Your task to perform on an android device: visit the assistant section in the google photos Image 0: 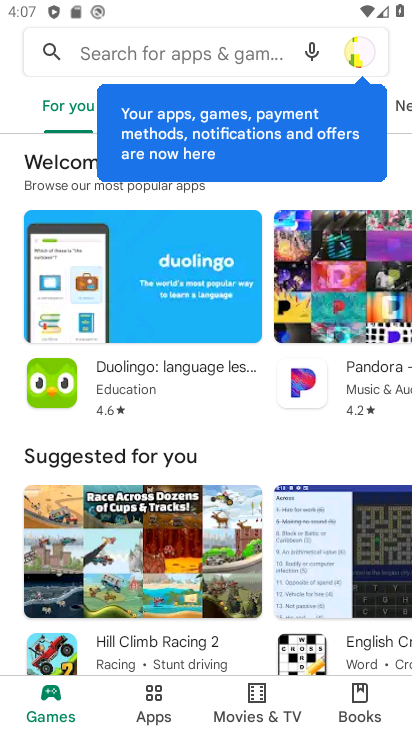
Step 0: press home button
Your task to perform on an android device: visit the assistant section in the google photos Image 1: 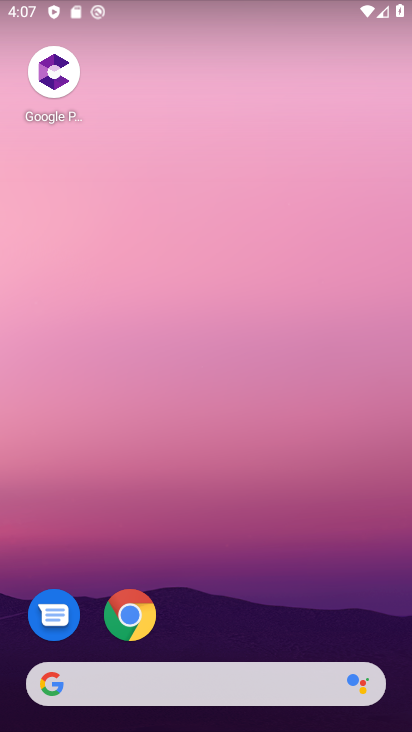
Step 1: drag from (229, 663) to (223, 277)
Your task to perform on an android device: visit the assistant section in the google photos Image 2: 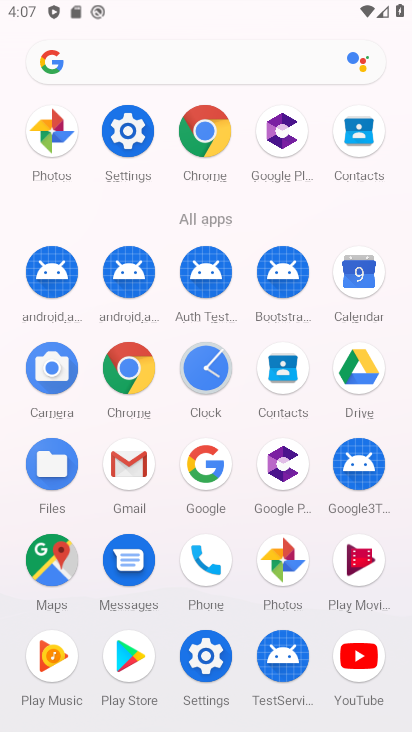
Step 2: drag from (231, 714) to (231, 380)
Your task to perform on an android device: visit the assistant section in the google photos Image 3: 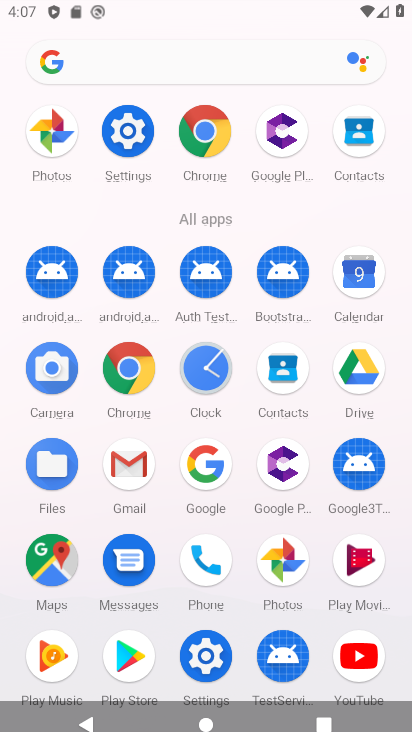
Step 3: click (280, 561)
Your task to perform on an android device: visit the assistant section in the google photos Image 4: 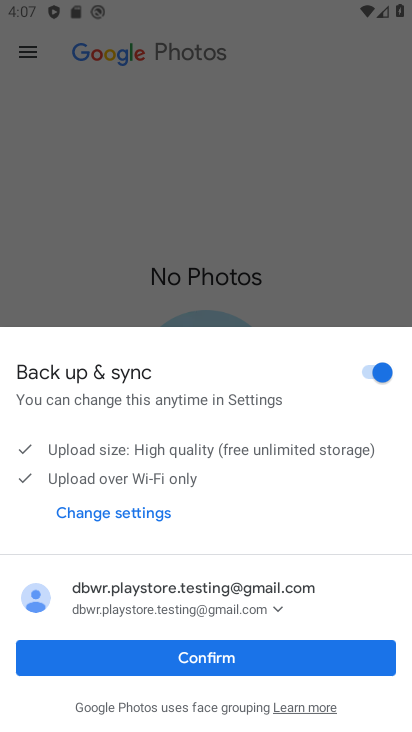
Step 4: click (216, 664)
Your task to perform on an android device: visit the assistant section in the google photos Image 5: 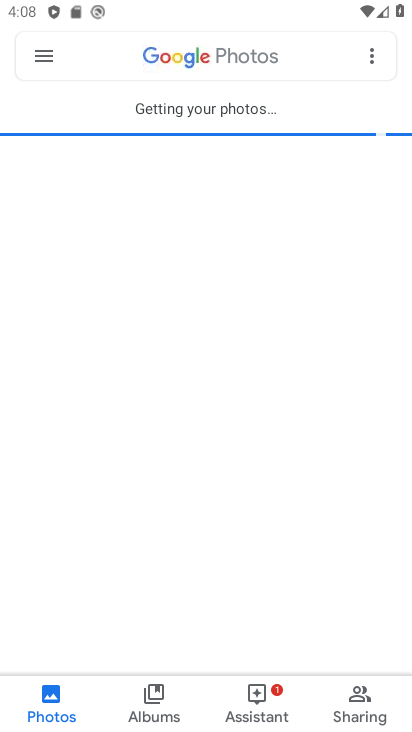
Step 5: click (254, 705)
Your task to perform on an android device: visit the assistant section in the google photos Image 6: 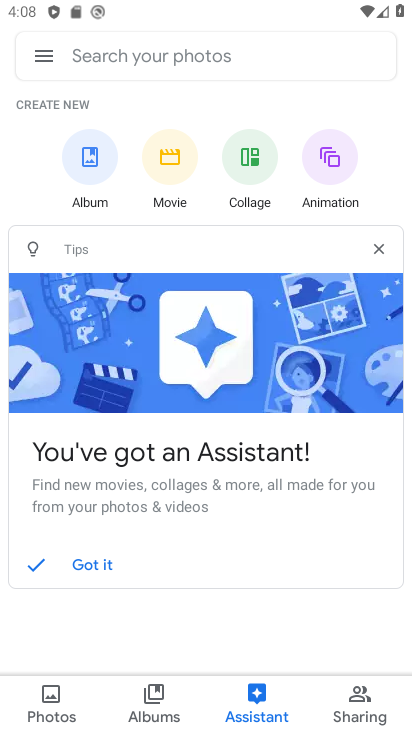
Step 6: drag from (206, 642) to (252, 237)
Your task to perform on an android device: visit the assistant section in the google photos Image 7: 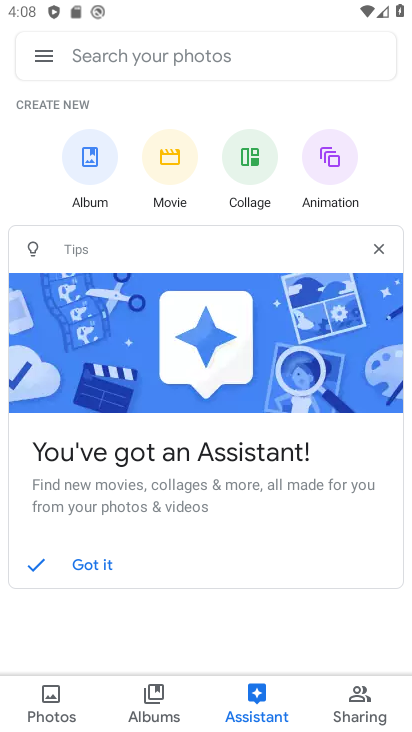
Step 7: drag from (98, 594) to (114, 188)
Your task to perform on an android device: visit the assistant section in the google photos Image 8: 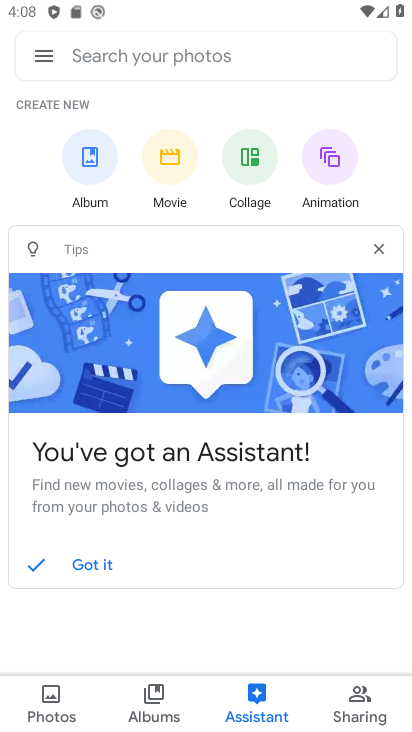
Step 8: click (99, 560)
Your task to perform on an android device: visit the assistant section in the google photos Image 9: 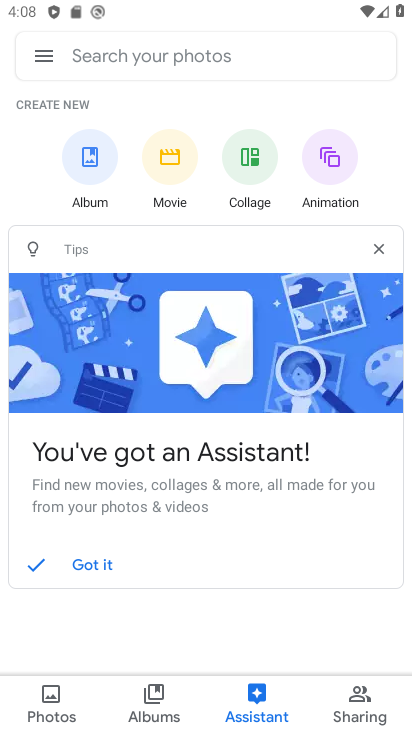
Step 9: drag from (126, 627) to (142, 306)
Your task to perform on an android device: visit the assistant section in the google photos Image 10: 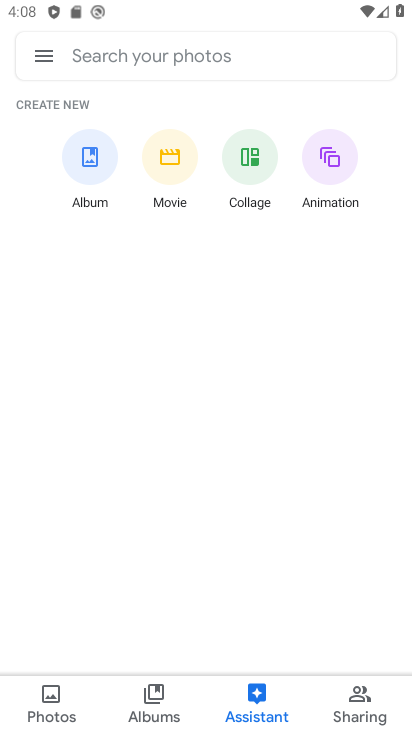
Step 10: click (260, 705)
Your task to perform on an android device: visit the assistant section in the google photos Image 11: 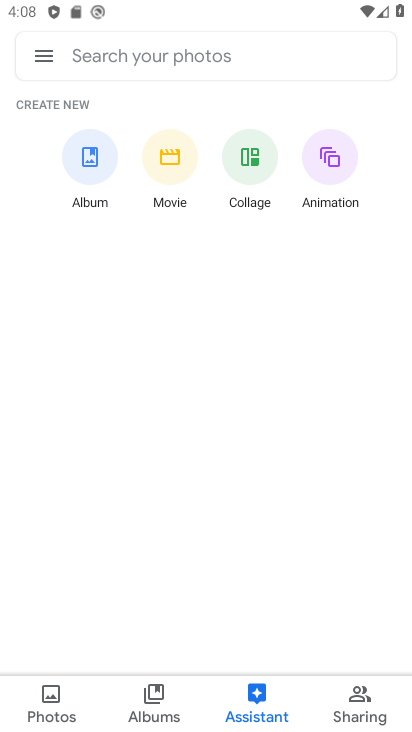
Step 11: task complete